Your task to perform on an android device: Open the map Image 0: 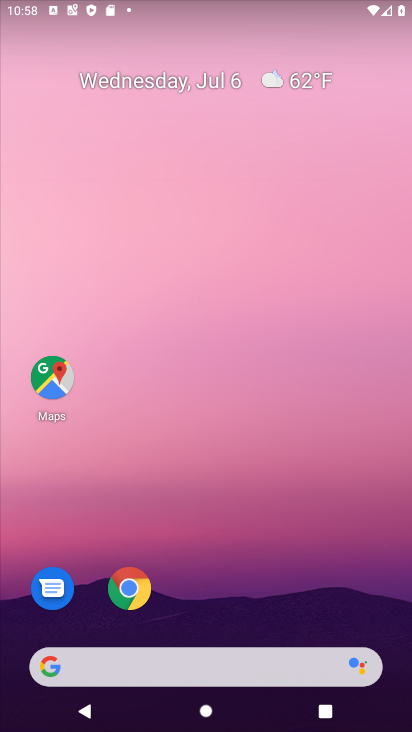
Step 0: click (49, 377)
Your task to perform on an android device: Open the map Image 1: 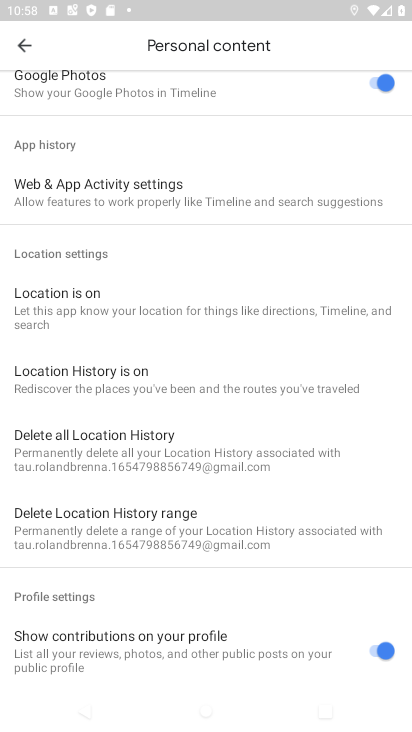
Step 1: task complete